Your task to perform on an android device: delete browsing data in the chrome app Image 0: 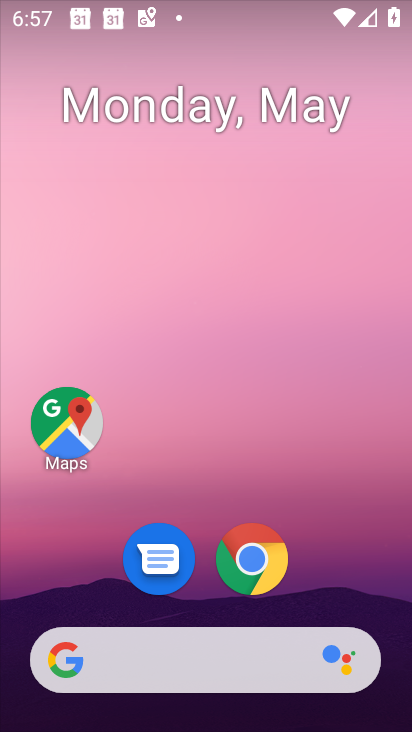
Step 0: drag from (377, 677) to (357, 32)
Your task to perform on an android device: delete browsing data in the chrome app Image 1: 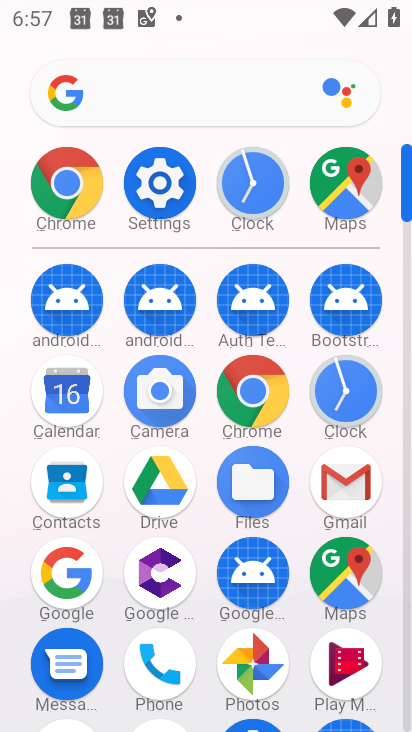
Step 1: click (262, 410)
Your task to perform on an android device: delete browsing data in the chrome app Image 2: 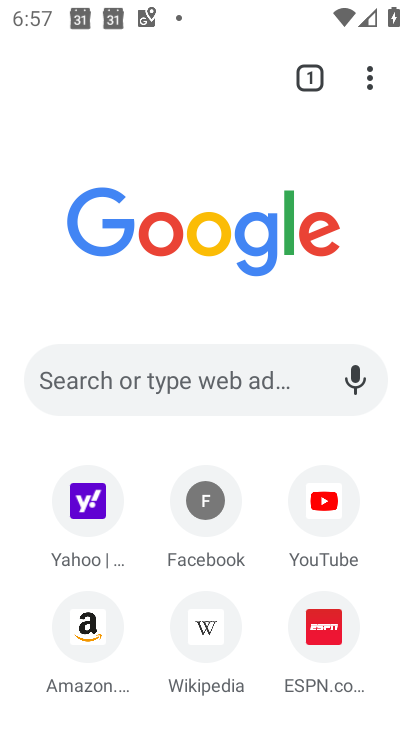
Step 2: click (371, 84)
Your task to perform on an android device: delete browsing data in the chrome app Image 3: 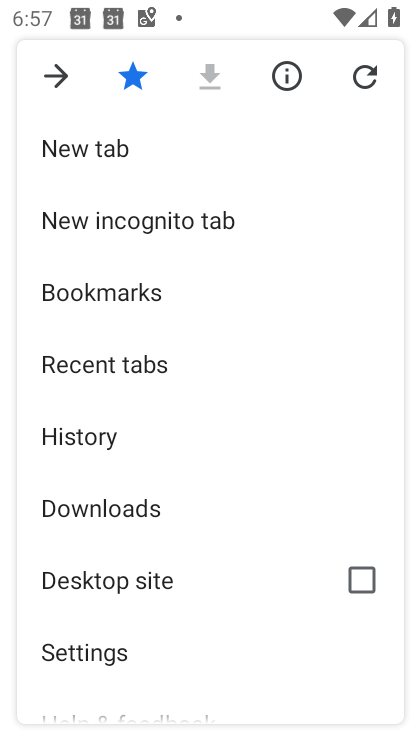
Step 3: click (84, 451)
Your task to perform on an android device: delete browsing data in the chrome app Image 4: 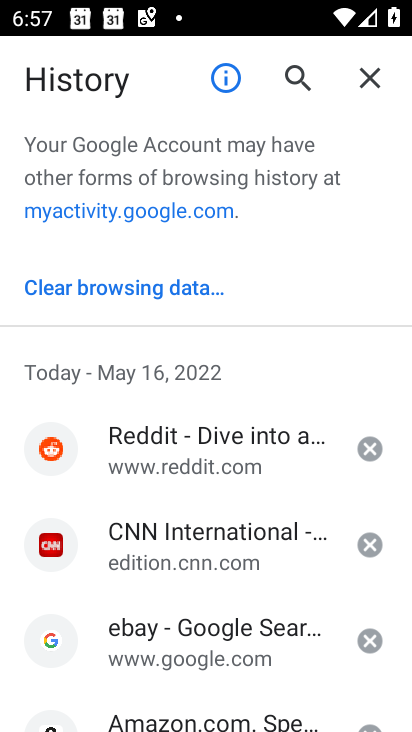
Step 4: click (109, 282)
Your task to perform on an android device: delete browsing data in the chrome app Image 5: 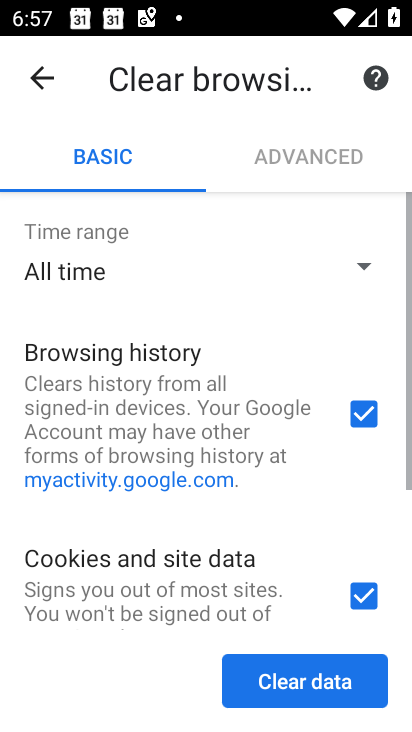
Step 5: click (292, 670)
Your task to perform on an android device: delete browsing data in the chrome app Image 6: 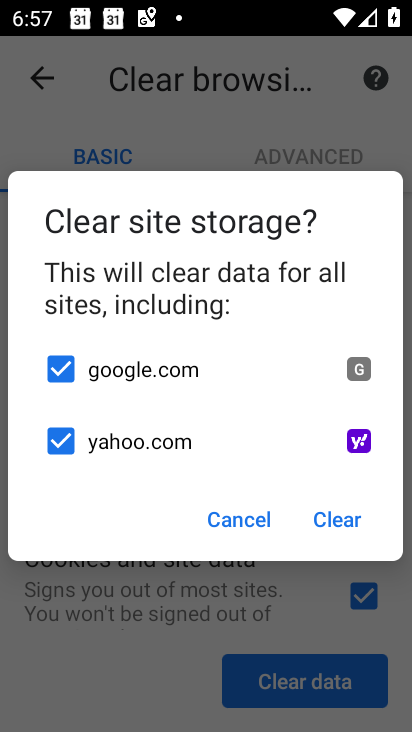
Step 6: click (335, 520)
Your task to perform on an android device: delete browsing data in the chrome app Image 7: 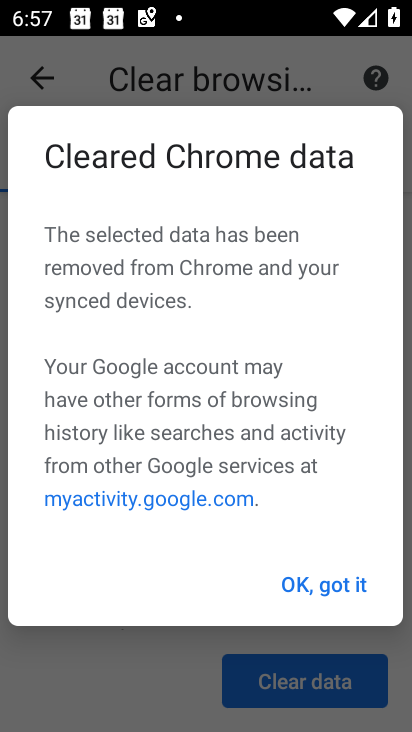
Step 7: click (324, 580)
Your task to perform on an android device: delete browsing data in the chrome app Image 8: 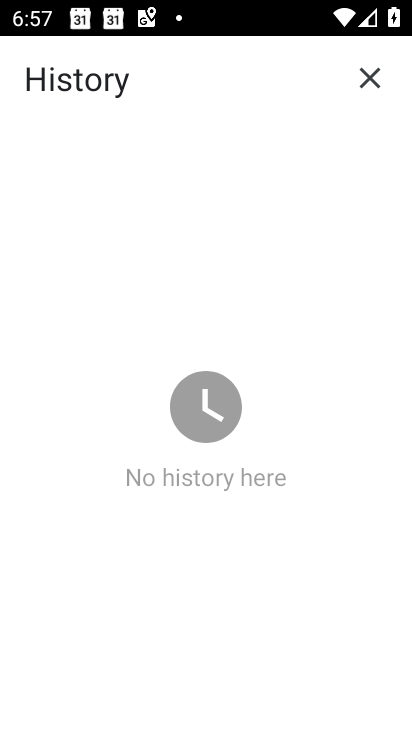
Step 8: task complete